Your task to perform on an android device: uninstall "Google Maps" Image 0: 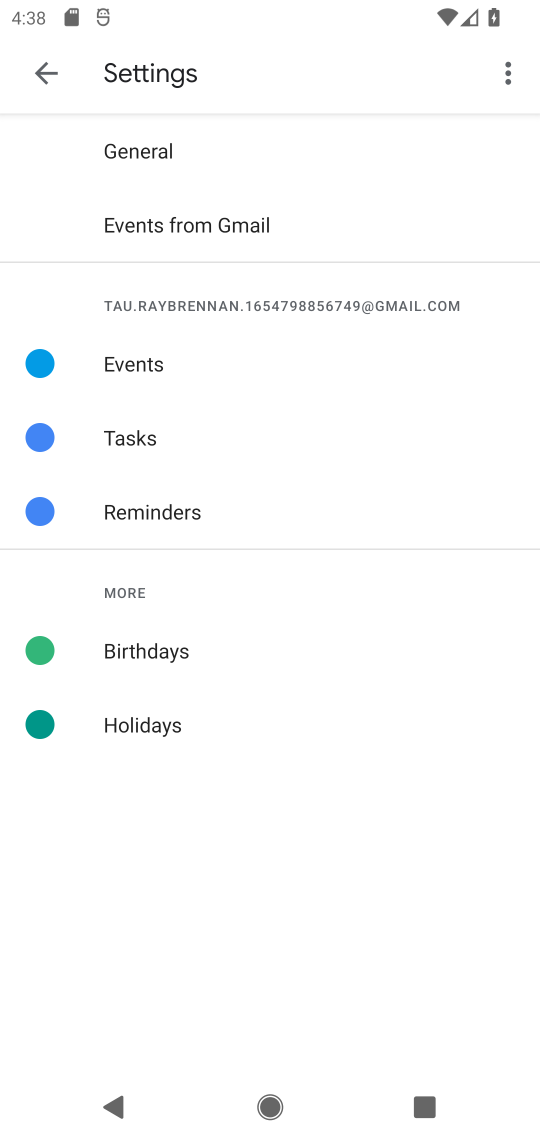
Step 0: press home button
Your task to perform on an android device: uninstall "Google Maps" Image 1: 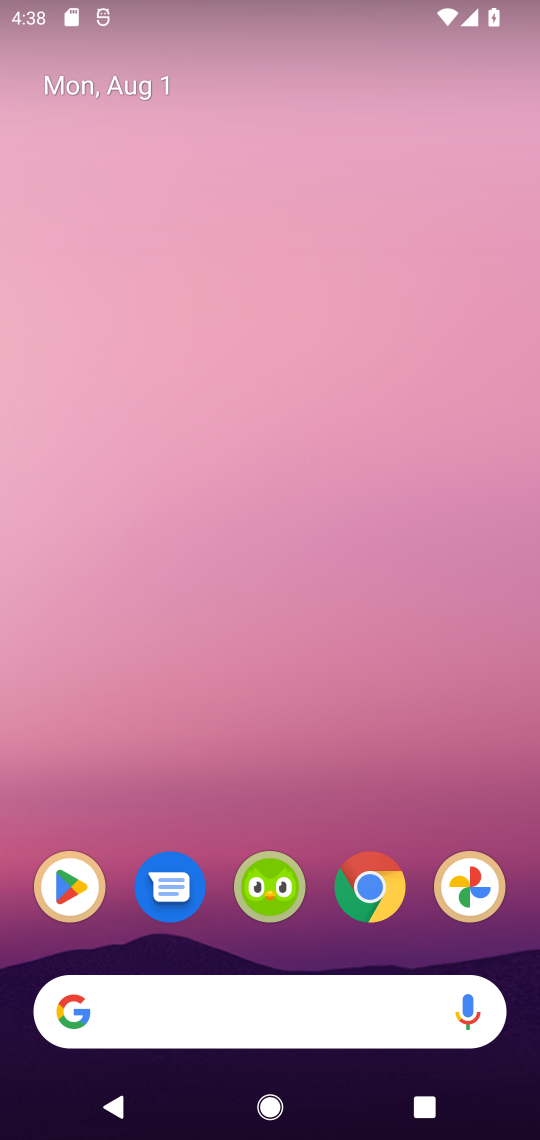
Step 1: drag from (230, 937) to (58, 56)
Your task to perform on an android device: uninstall "Google Maps" Image 2: 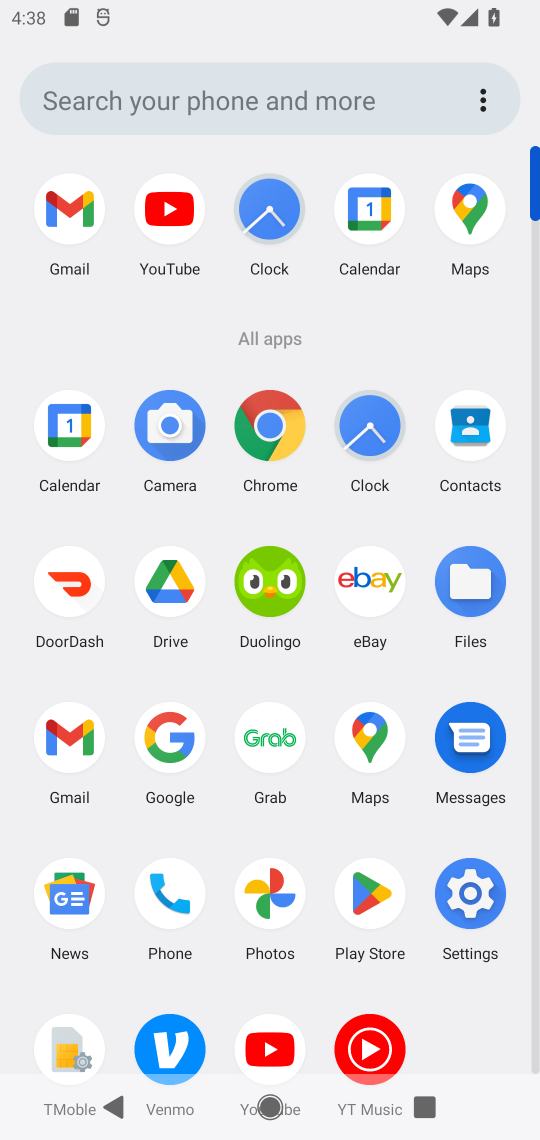
Step 2: click (358, 874)
Your task to perform on an android device: uninstall "Google Maps" Image 3: 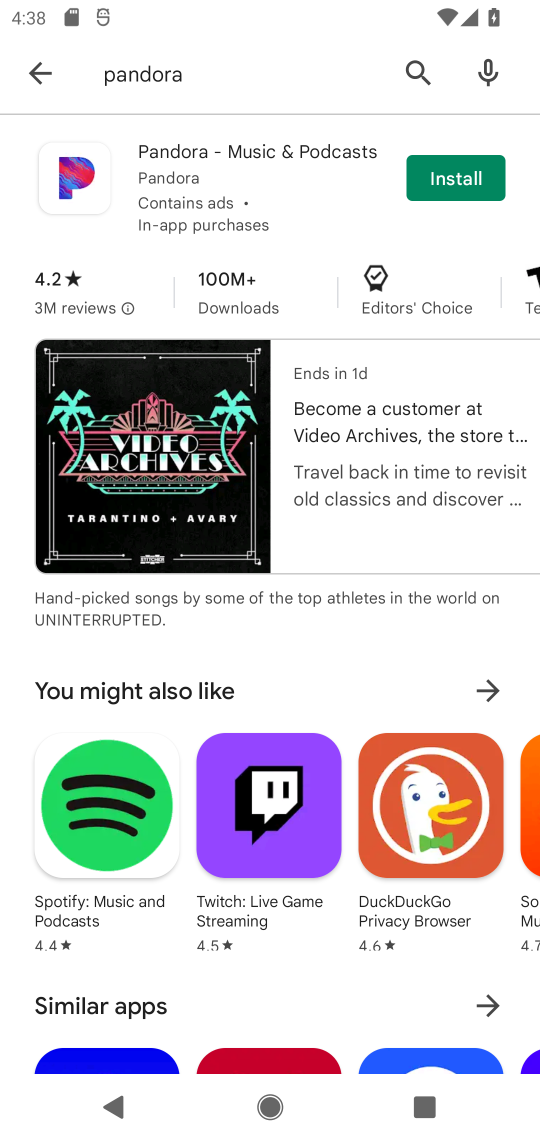
Step 3: click (31, 81)
Your task to perform on an android device: uninstall "Google Maps" Image 4: 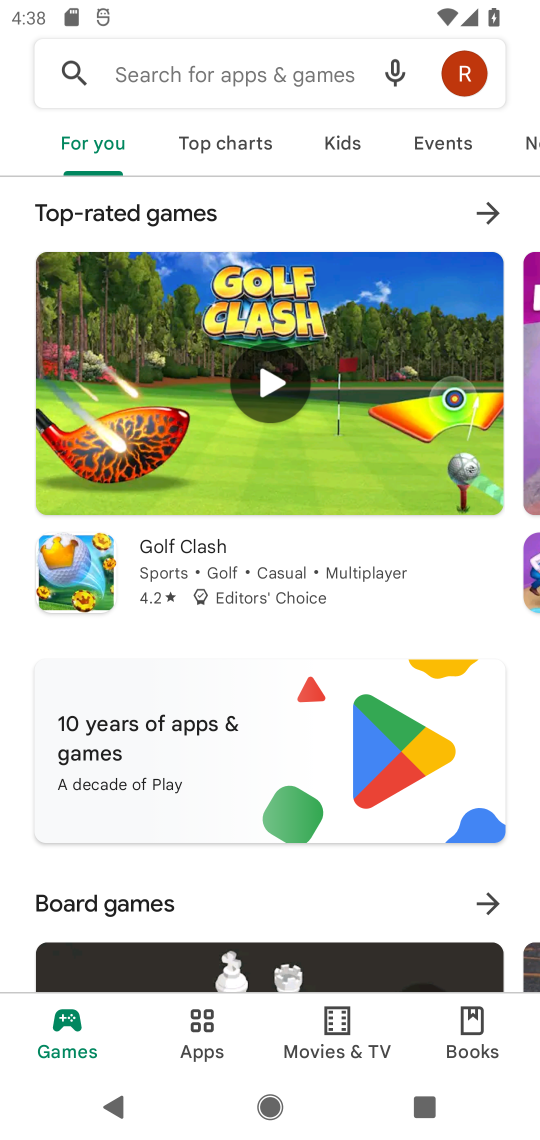
Step 4: click (182, 70)
Your task to perform on an android device: uninstall "Google Maps" Image 5: 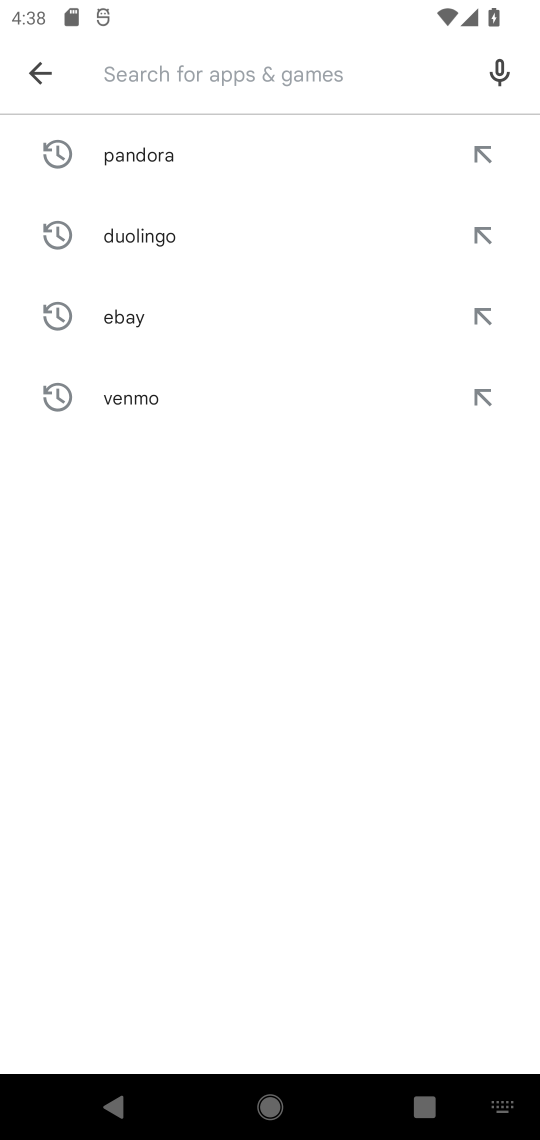
Step 5: type "Google Maps"
Your task to perform on an android device: uninstall "Google Maps" Image 6: 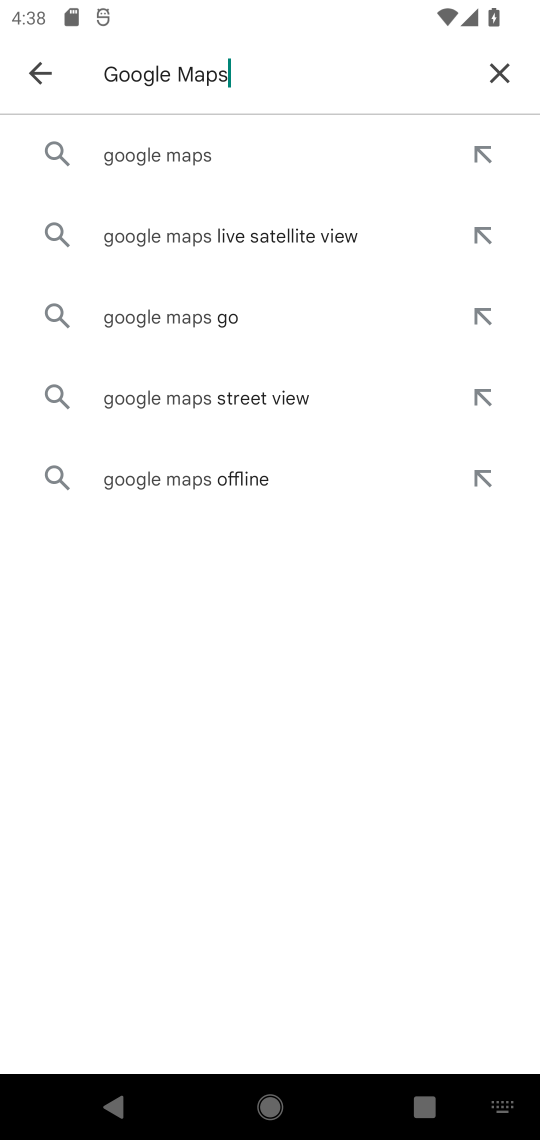
Step 6: click (168, 157)
Your task to perform on an android device: uninstall "Google Maps" Image 7: 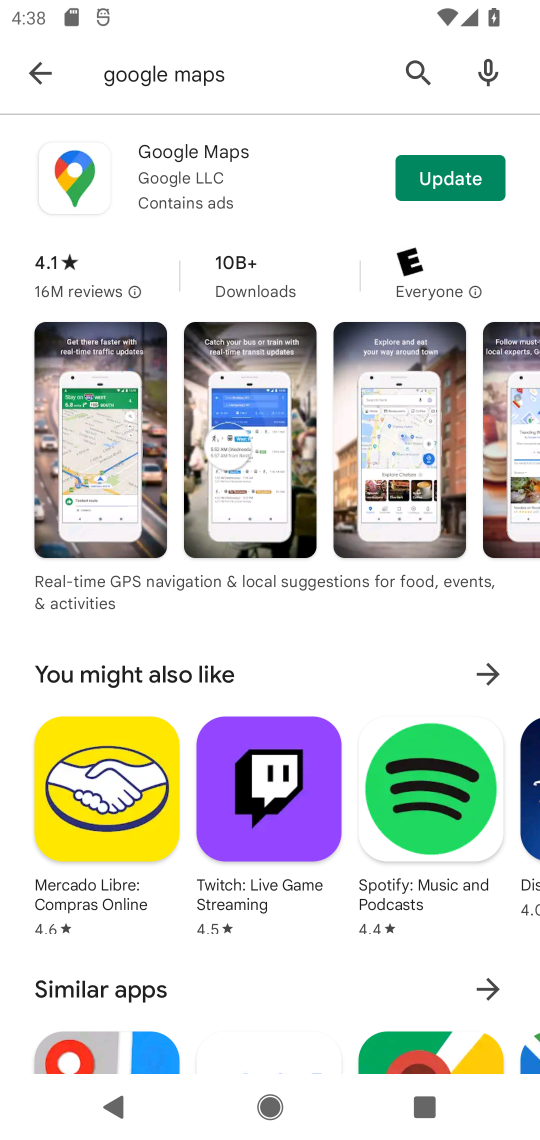
Step 7: click (411, 174)
Your task to perform on an android device: uninstall "Google Maps" Image 8: 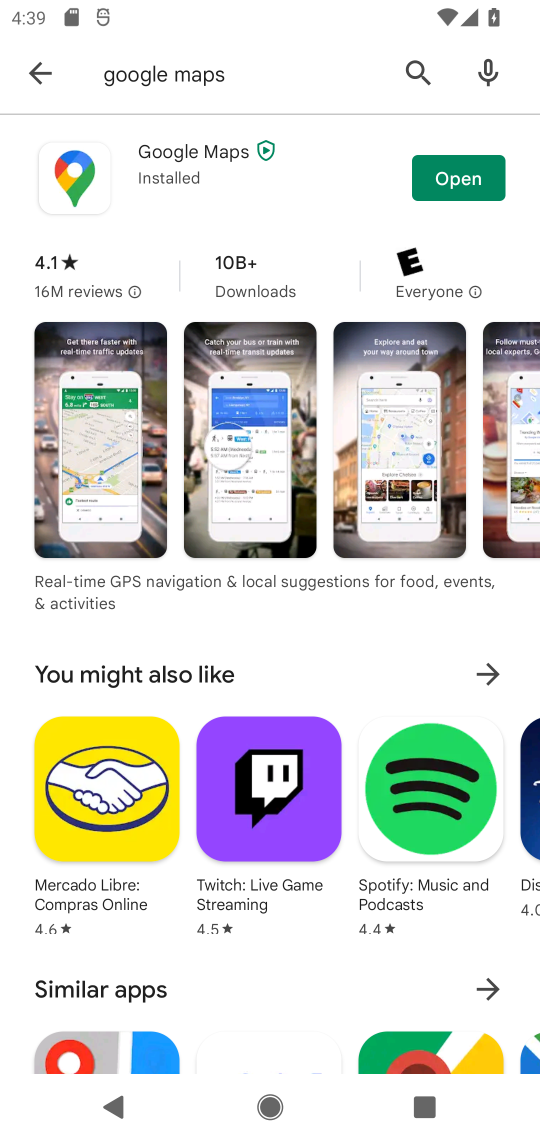
Step 8: click (284, 164)
Your task to perform on an android device: uninstall "Google Maps" Image 9: 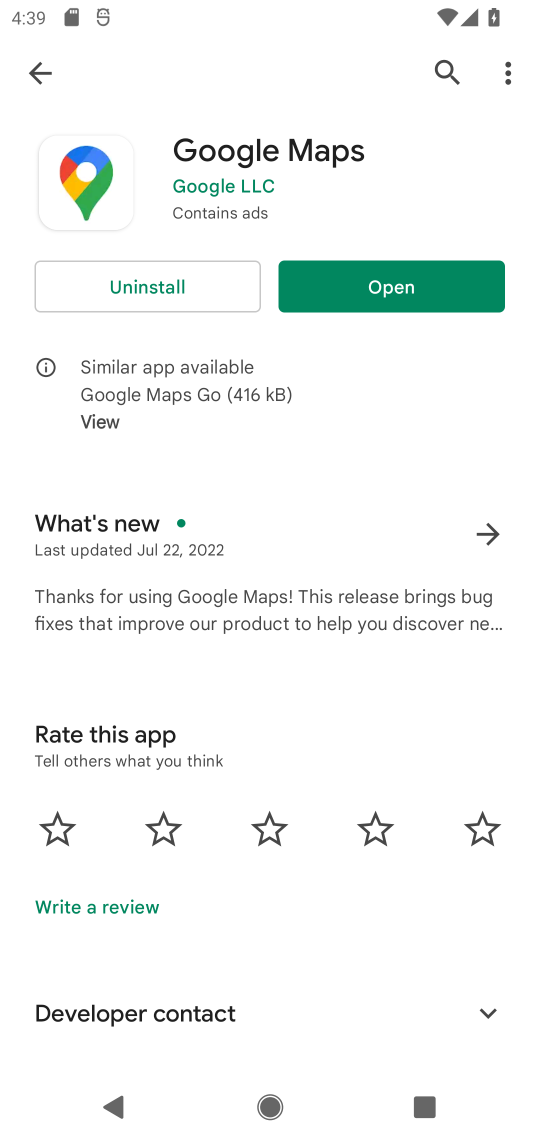
Step 9: click (193, 274)
Your task to perform on an android device: uninstall "Google Maps" Image 10: 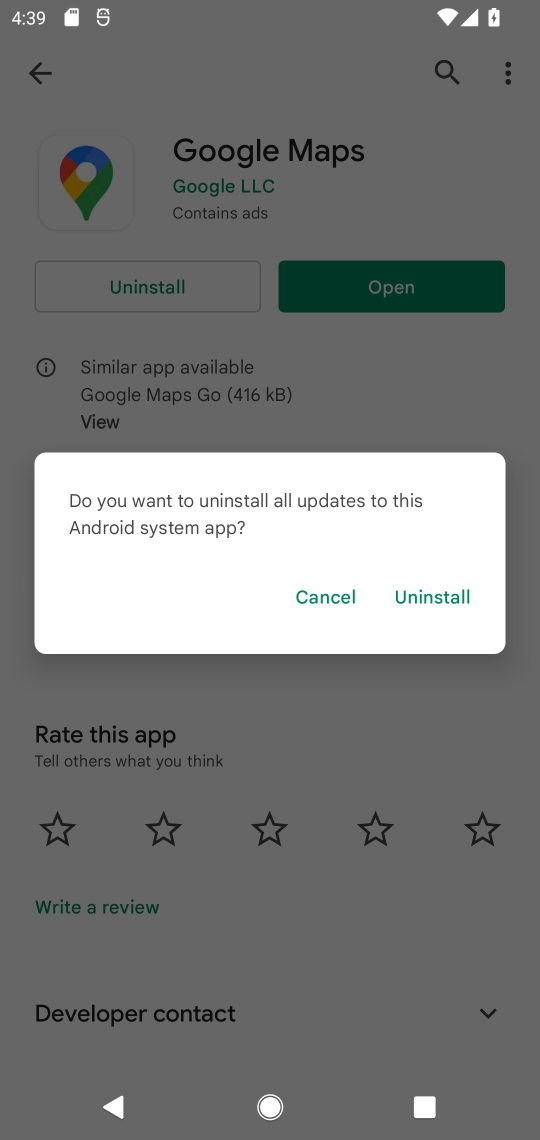
Step 10: click (454, 607)
Your task to perform on an android device: uninstall "Google Maps" Image 11: 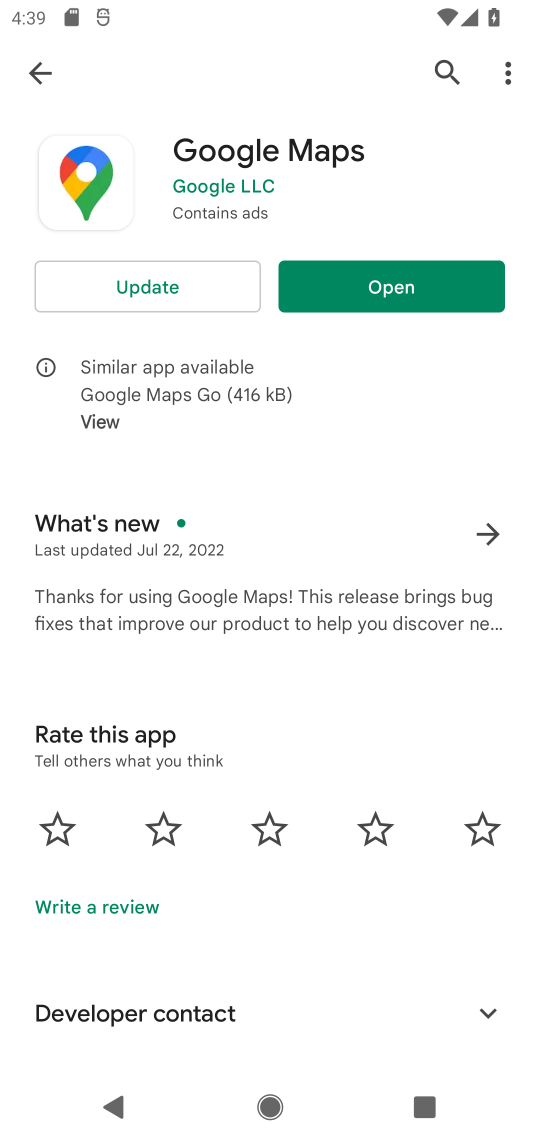
Step 11: task complete